Your task to perform on an android device: all mails in gmail Image 0: 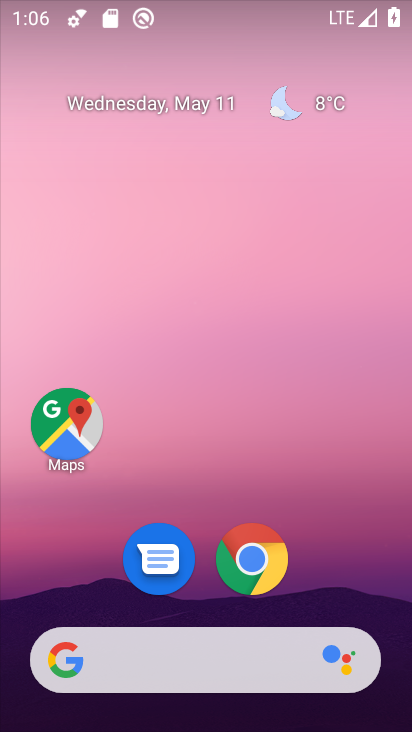
Step 0: drag from (185, 717) to (190, 83)
Your task to perform on an android device: all mails in gmail Image 1: 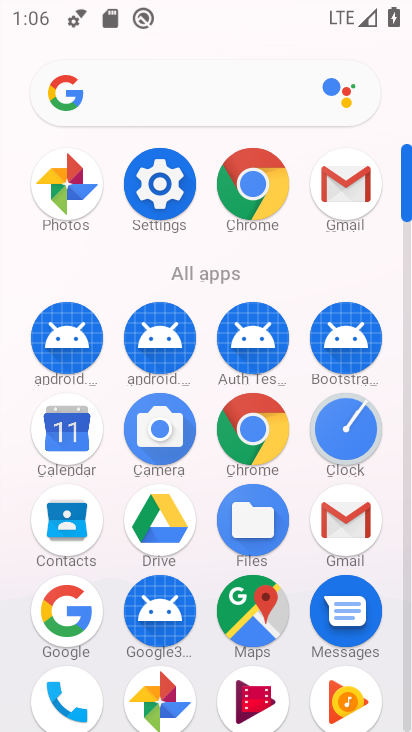
Step 1: click (348, 521)
Your task to perform on an android device: all mails in gmail Image 2: 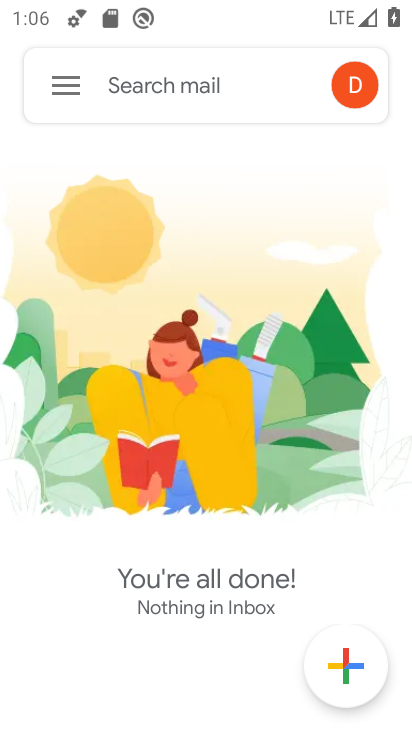
Step 2: click (60, 86)
Your task to perform on an android device: all mails in gmail Image 3: 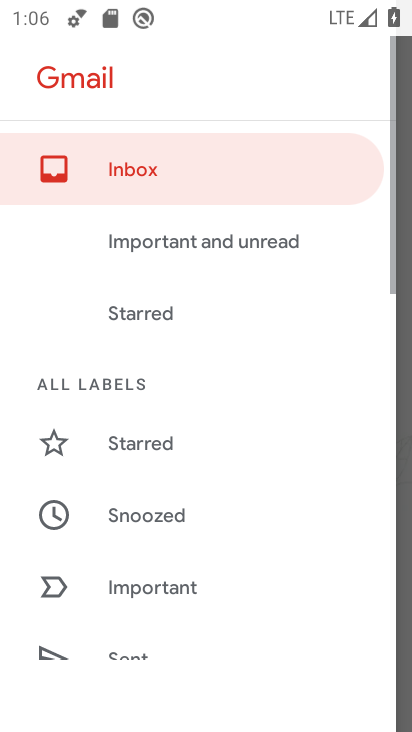
Step 3: drag from (182, 636) to (179, 190)
Your task to perform on an android device: all mails in gmail Image 4: 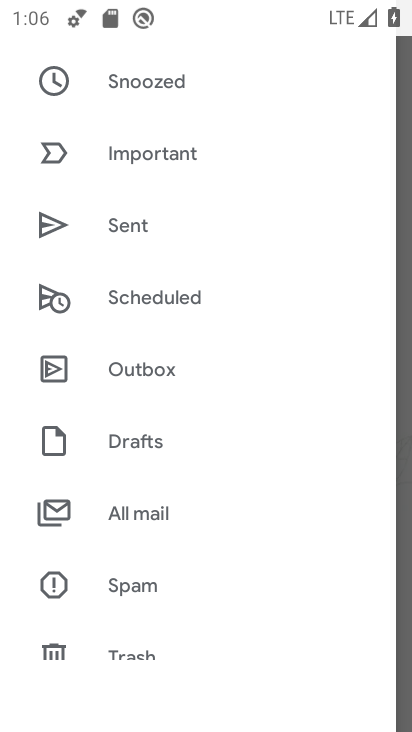
Step 4: click (162, 509)
Your task to perform on an android device: all mails in gmail Image 5: 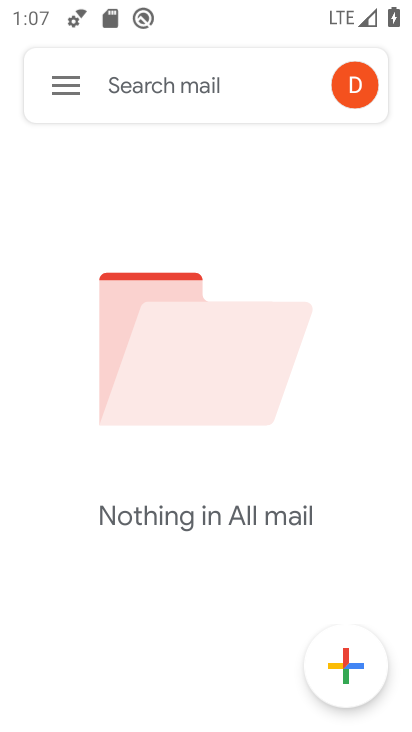
Step 5: task complete